Your task to perform on an android device: remove spam from my inbox in the gmail app Image 0: 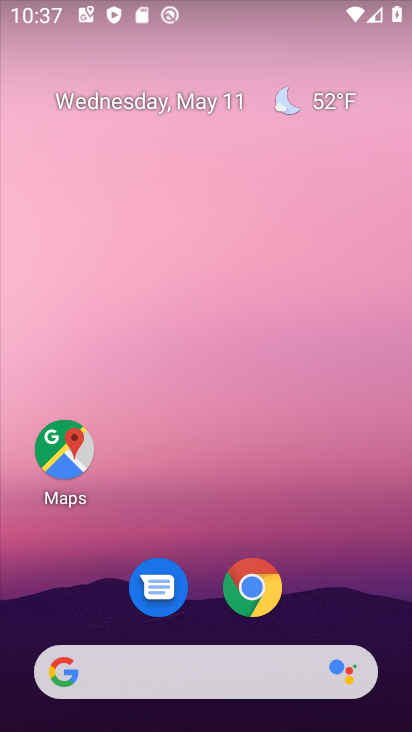
Step 0: drag from (306, 708) to (217, 178)
Your task to perform on an android device: remove spam from my inbox in the gmail app Image 1: 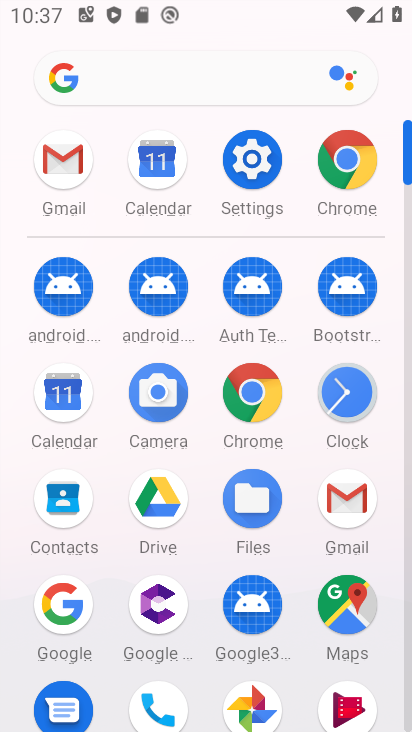
Step 1: click (327, 482)
Your task to perform on an android device: remove spam from my inbox in the gmail app Image 2: 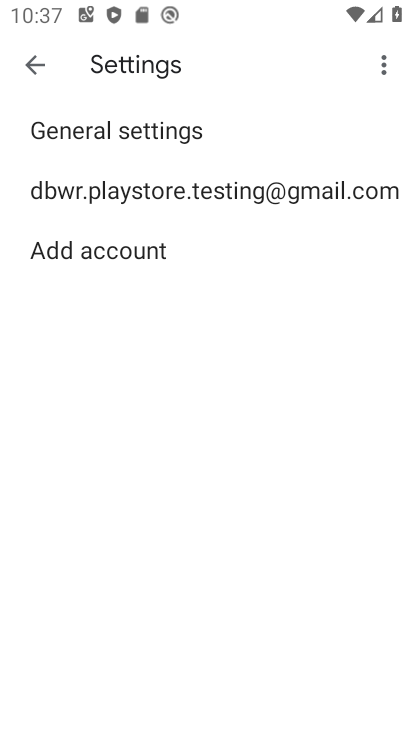
Step 2: click (27, 63)
Your task to perform on an android device: remove spam from my inbox in the gmail app Image 3: 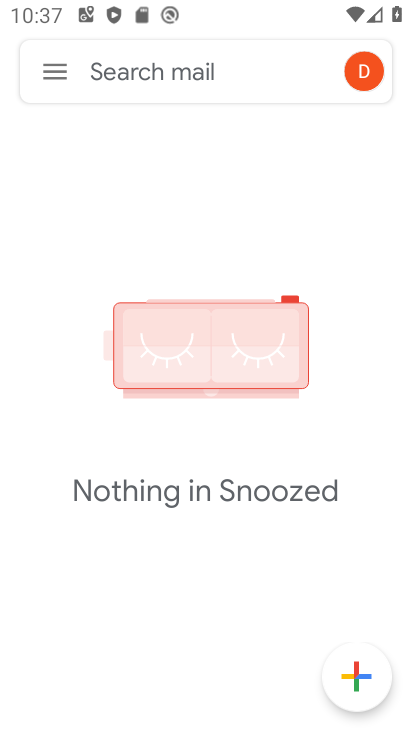
Step 3: click (47, 84)
Your task to perform on an android device: remove spam from my inbox in the gmail app Image 4: 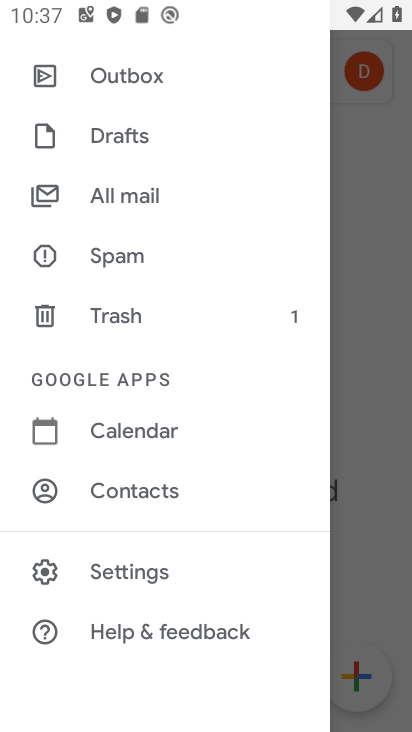
Step 4: click (123, 265)
Your task to perform on an android device: remove spam from my inbox in the gmail app Image 5: 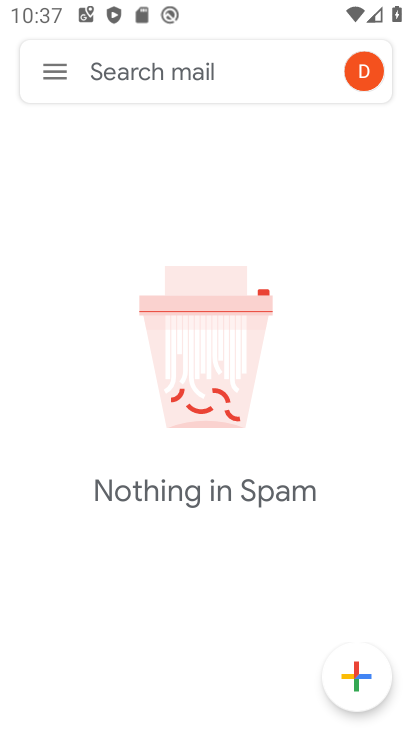
Step 5: task complete